Your task to perform on an android device: Open the Play Movies app and select the watchlist tab. Image 0: 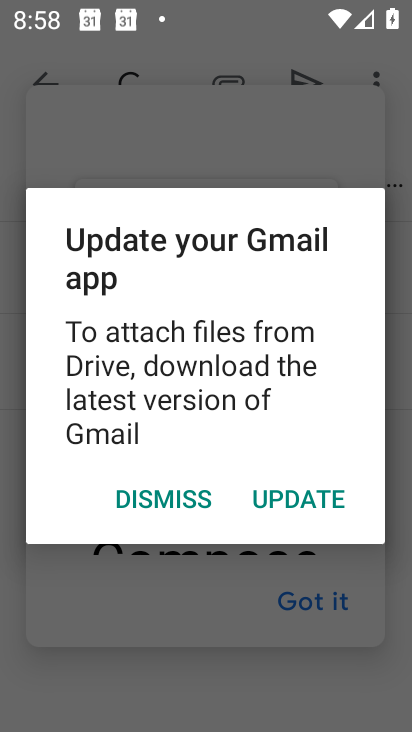
Step 0: press home button
Your task to perform on an android device: Open the Play Movies app and select the watchlist tab. Image 1: 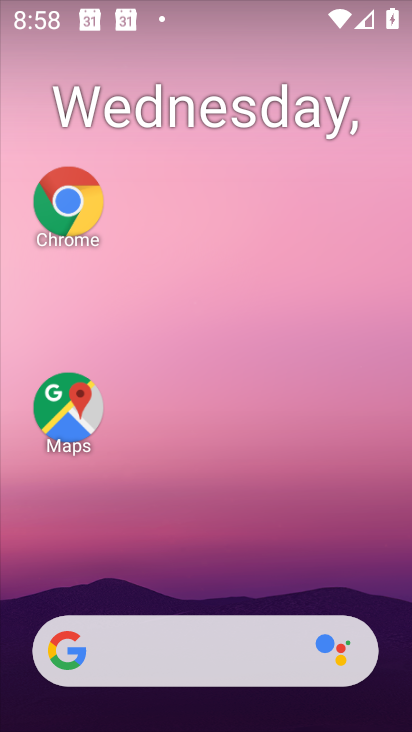
Step 1: drag from (214, 590) to (234, 45)
Your task to perform on an android device: Open the Play Movies app and select the watchlist tab. Image 2: 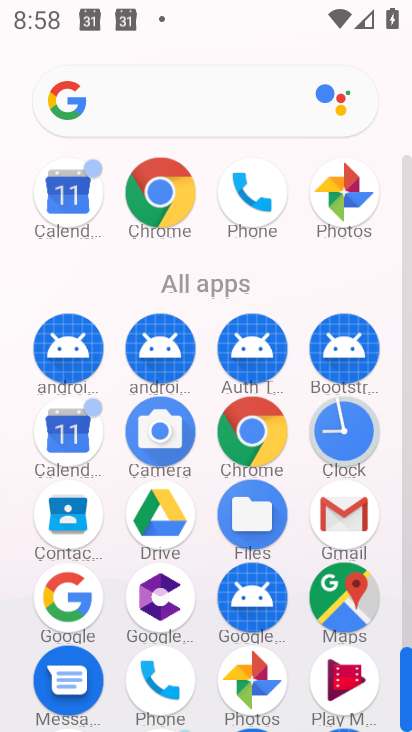
Step 2: click (337, 657)
Your task to perform on an android device: Open the Play Movies app and select the watchlist tab. Image 3: 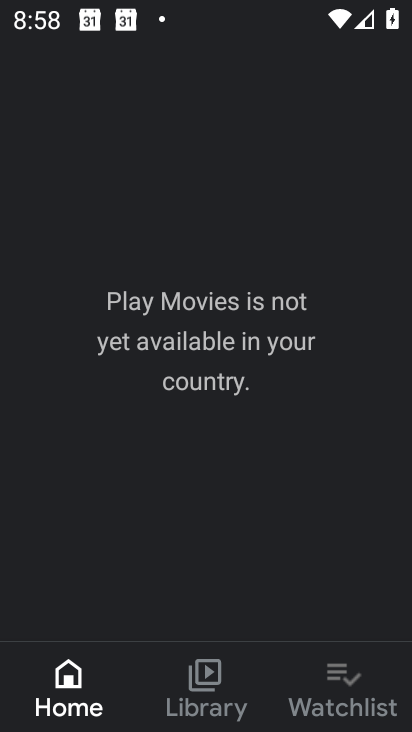
Step 3: click (331, 682)
Your task to perform on an android device: Open the Play Movies app and select the watchlist tab. Image 4: 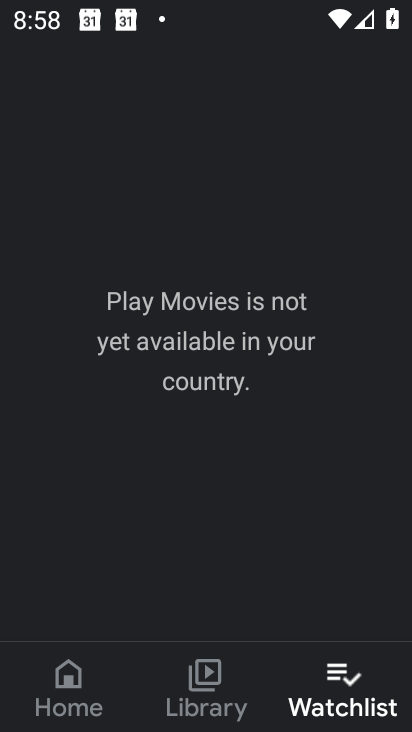
Step 4: task complete